Your task to perform on an android device: Open the map Image 0: 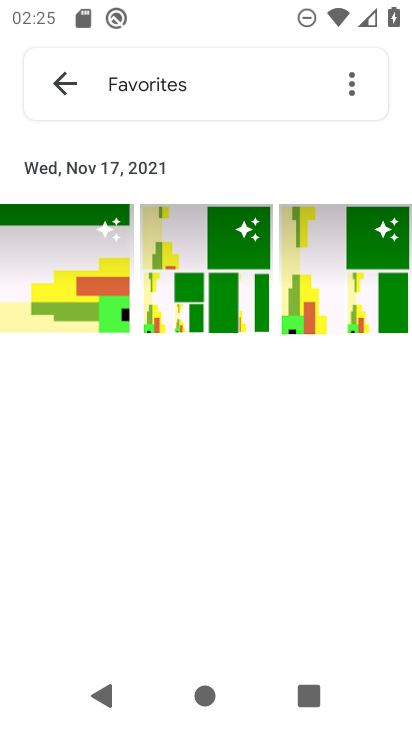
Step 0: press home button
Your task to perform on an android device: Open the map Image 1: 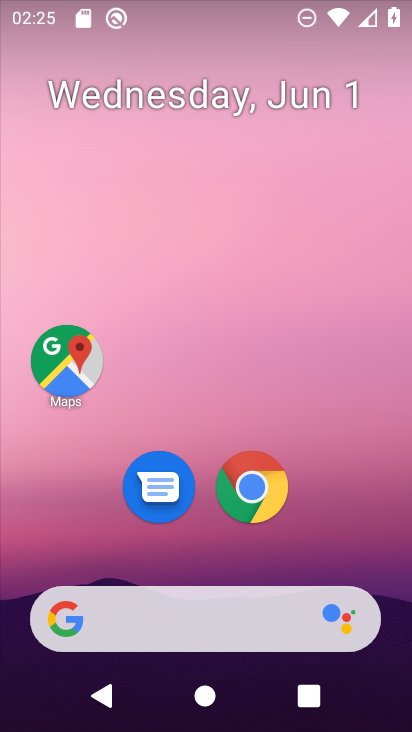
Step 1: click (57, 350)
Your task to perform on an android device: Open the map Image 2: 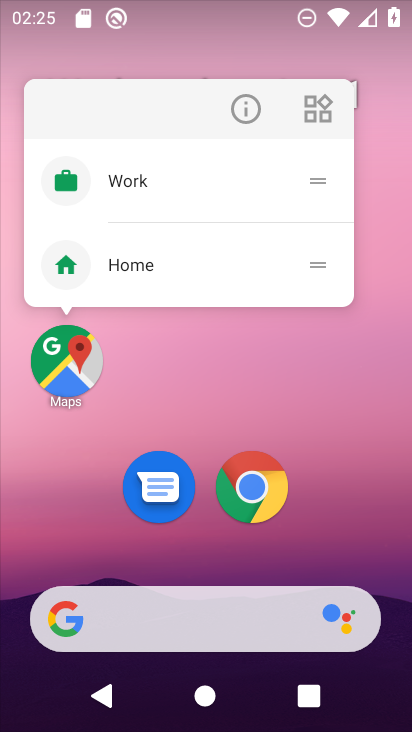
Step 2: task complete